Your task to perform on an android device: star an email in the gmail app Image 0: 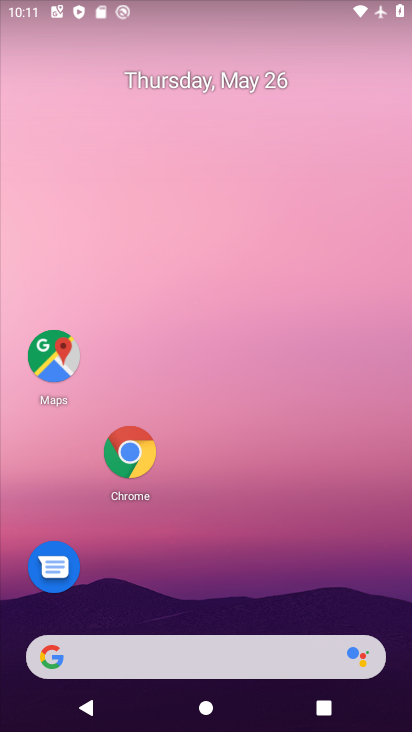
Step 0: press home button
Your task to perform on an android device: star an email in the gmail app Image 1: 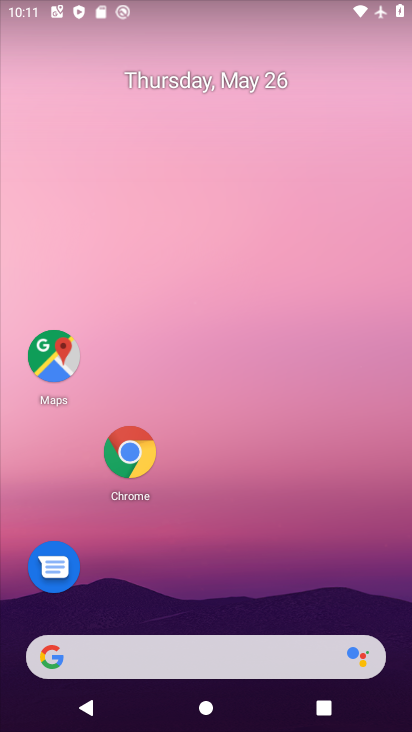
Step 1: drag from (188, 657) to (295, 67)
Your task to perform on an android device: star an email in the gmail app Image 2: 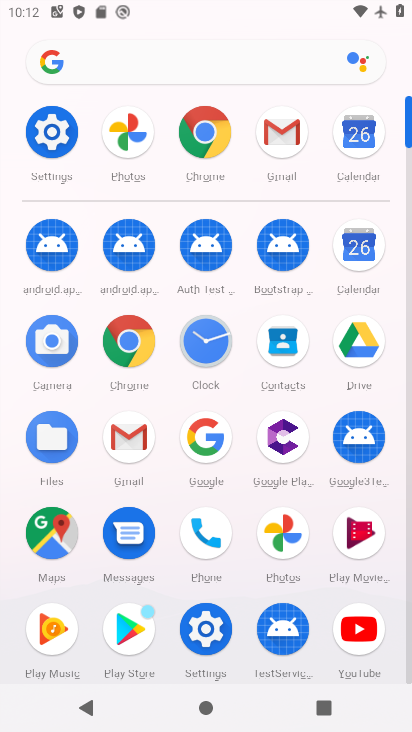
Step 2: click (282, 141)
Your task to perform on an android device: star an email in the gmail app Image 3: 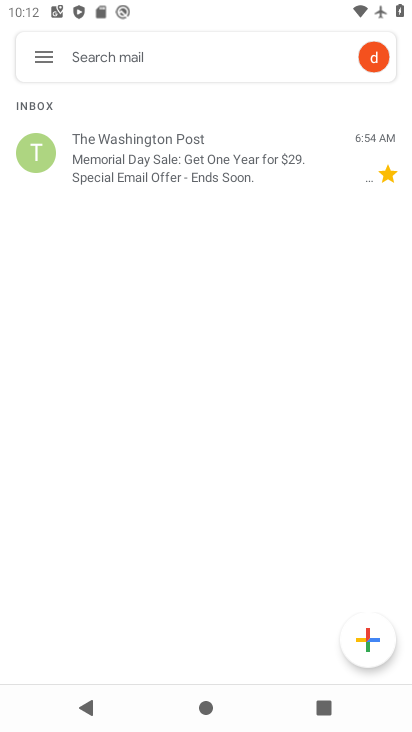
Step 3: click (49, 52)
Your task to perform on an android device: star an email in the gmail app Image 4: 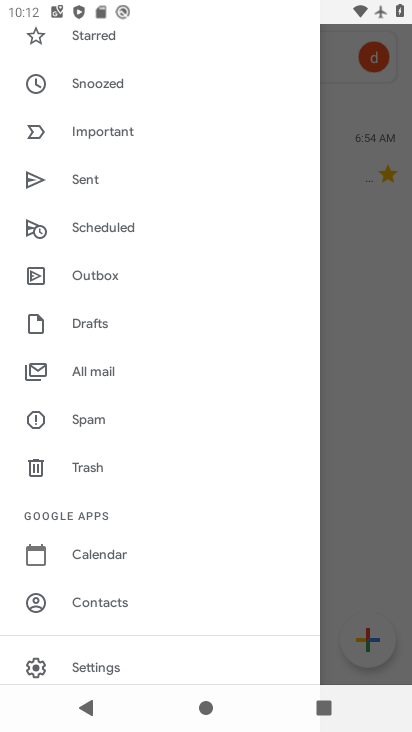
Step 4: click (103, 361)
Your task to perform on an android device: star an email in the gmail app Image 5: 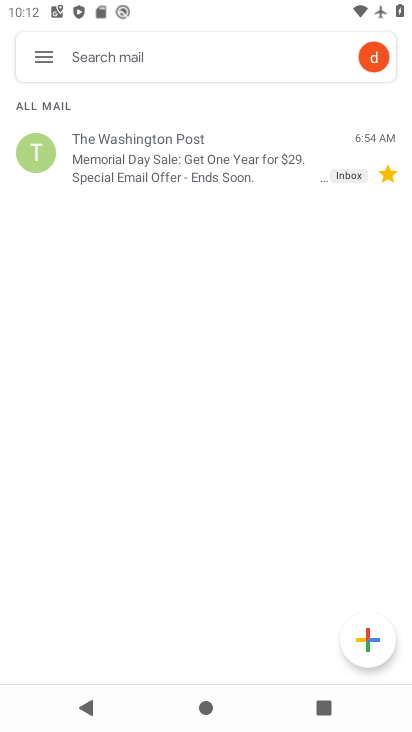
Step 5: task complete